Your task to perform on an android device: What's the weather today? Image 0: 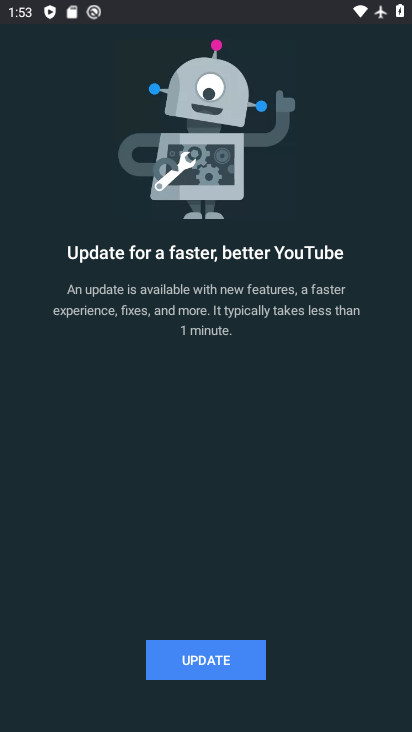
Step 0: press back button
Your task to perform on an android device: What's the weather today? Image 1: 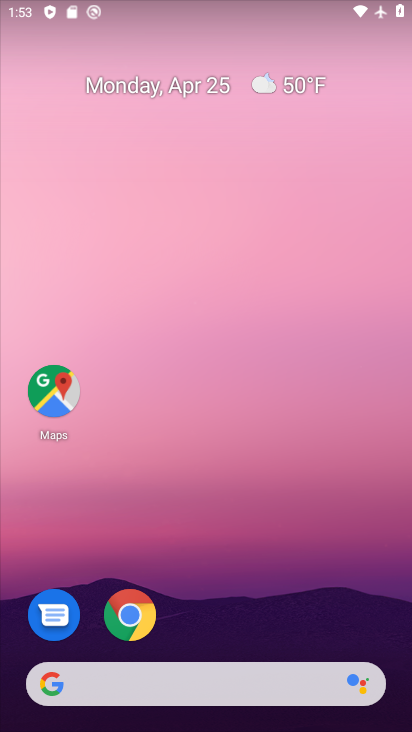
Step 1: drag from (238, 560) to (176, 36)
Your task to perform on an android device: What's the weather today? Image 2: 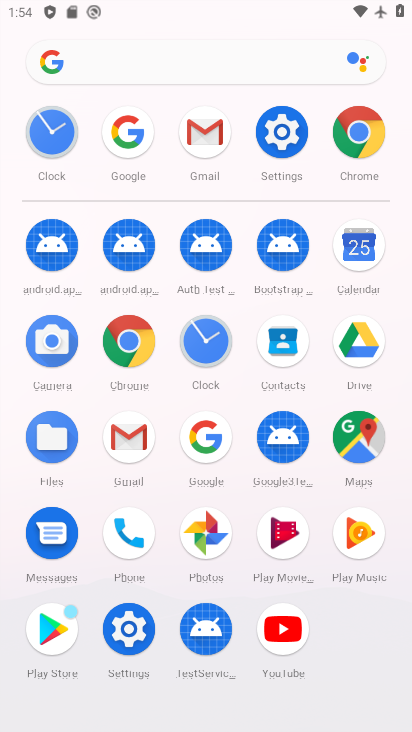
Step 2: click (208, 437)
Your task to perform on an android device: What's the weather today? Image 3: 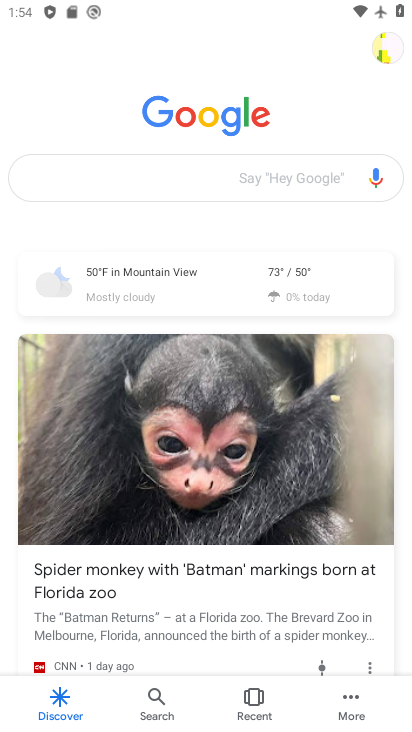
Step 3: click (229, 179)
Your task to perform on an android device: What's the weather today? Image 4: 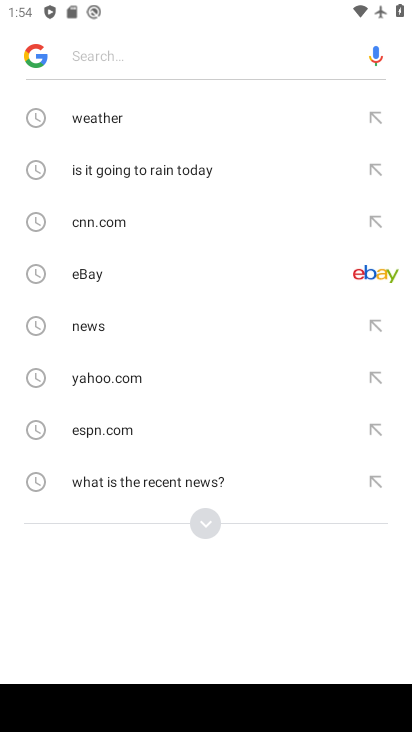
Step 4: click (112, 121)
Your task to perform on an android device: What's the weather today? Image 5: 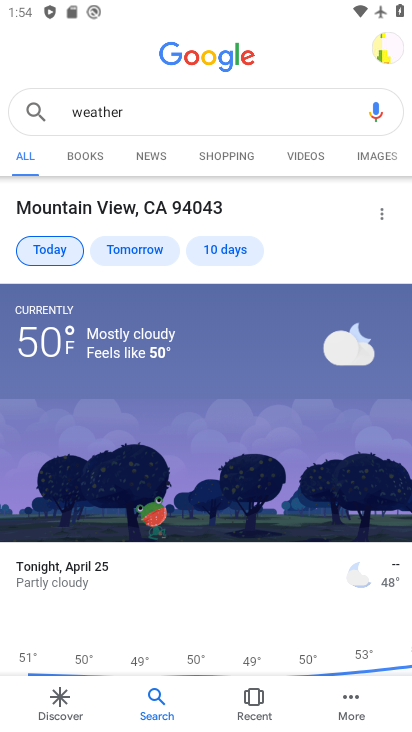
Step 5: task complete